Your task to perform on an android device: What's on my calendar tomorrow? Image 0: 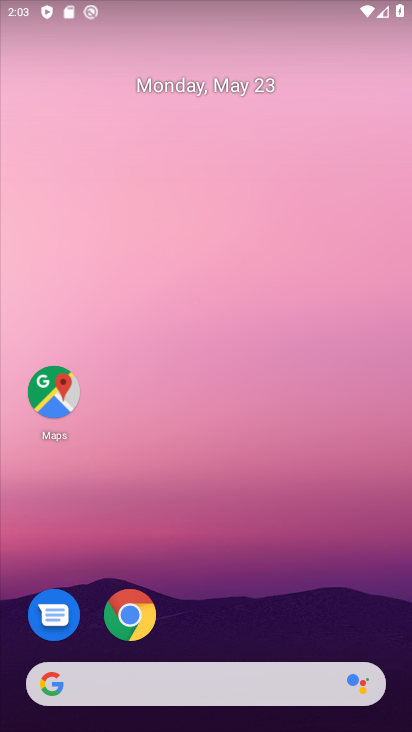
Step 0: drag from (243, 640) to (236, 21)
Your task to perform on an android device: What's on my calendar tomorrow? Image 1: 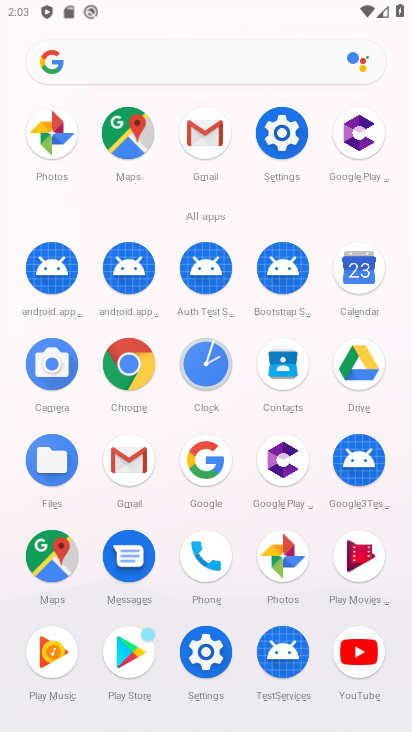
Step 1: click (349, 277)
Your task to perform on an android device: What's on my calendar tomorrow? Image 2: 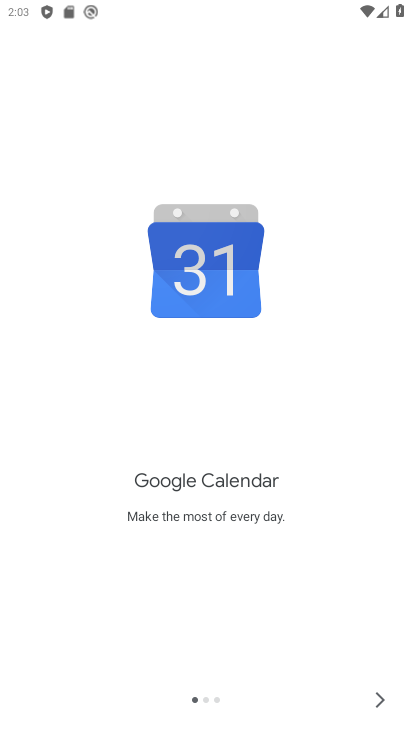
Step 2: click (383, 698)
Your task to perform on an android device: What's on my calendar tomorrow? Image 3: 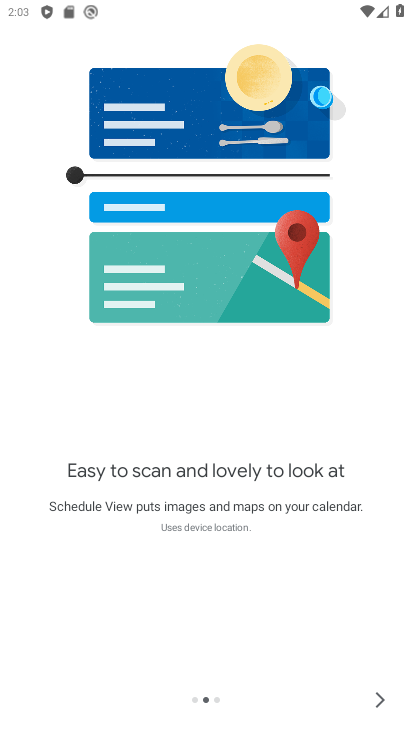
Step 3: click (383, 698)
Your task to perform on an android device: What's on my calendar tomorrow? Image 4: 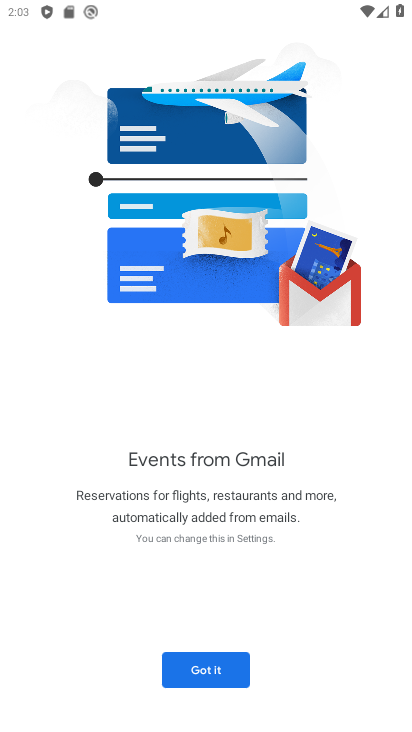
Step 4: click (200, 672)
Your task to perform on an android device: What's on my calendar tomorrow? Image 5: 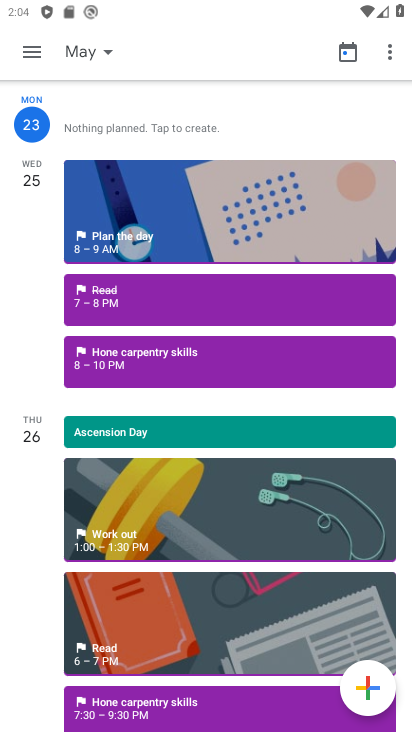
Step 5: click (112, 55)
Your task to perform on an android device: What's on my calendar tomorrow? Image 6: 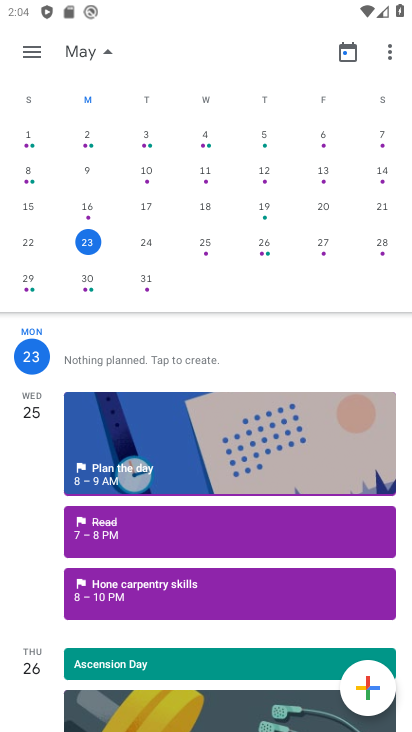
Step 6: click (146, 242)
Your task to perform on an android device: What's on my calendar tomorrow? Image 7: 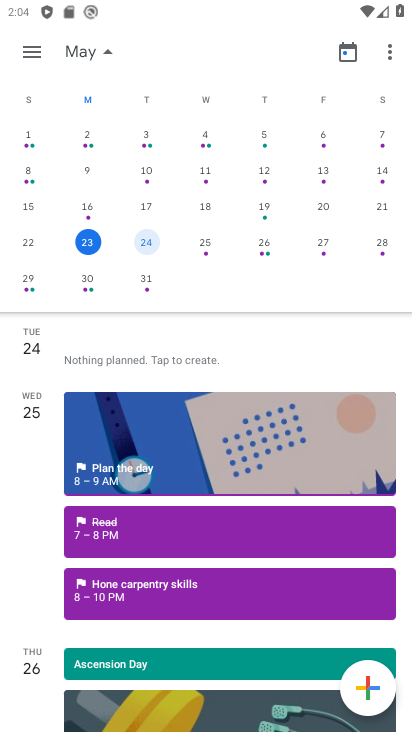
Step 7: click (113, 359)
Your task to perform on an android device: What's on my calendar tomorrow? Image 8: 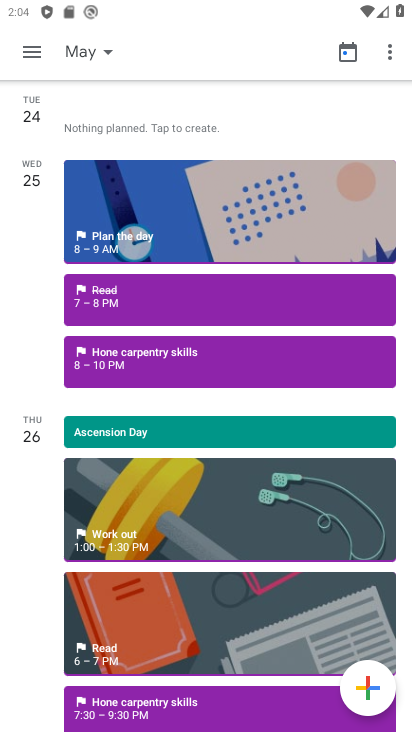
Step 8: click (125, 128)
Your task to perform on an android device: What's on my calendar tomorrow? Image 9: 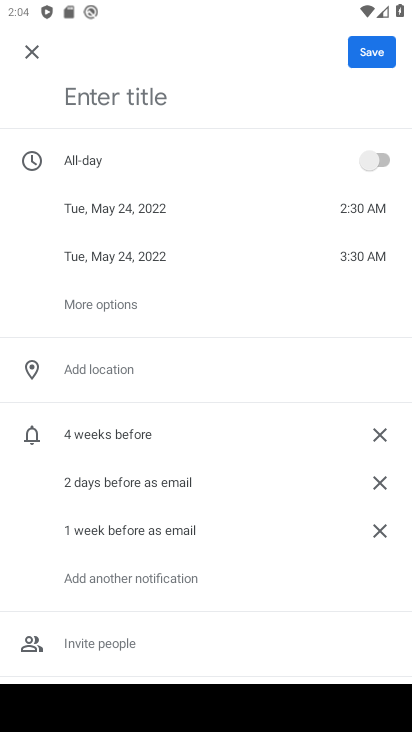
Step 9: task complete